Your task to perform on an android device: change text size in settings app Image 0: 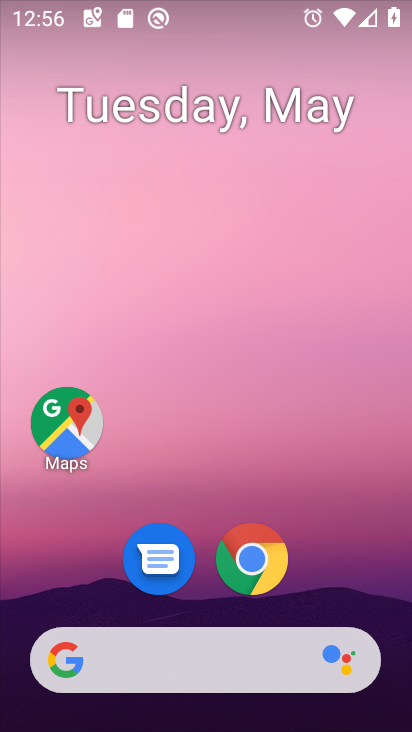
Step 0: drag from (384, 613) to (252, 108)
Your task to perform on an android device: change text size in settings app Image 1: 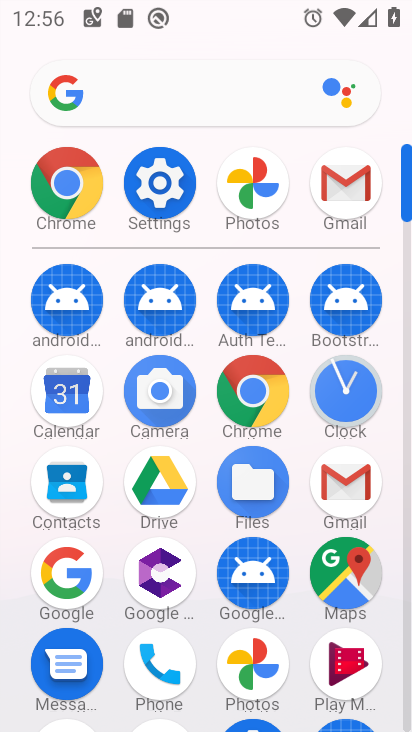
Step 1: click (174, 186)
Your task to perform on an android device: change text size in settings app Image 2: 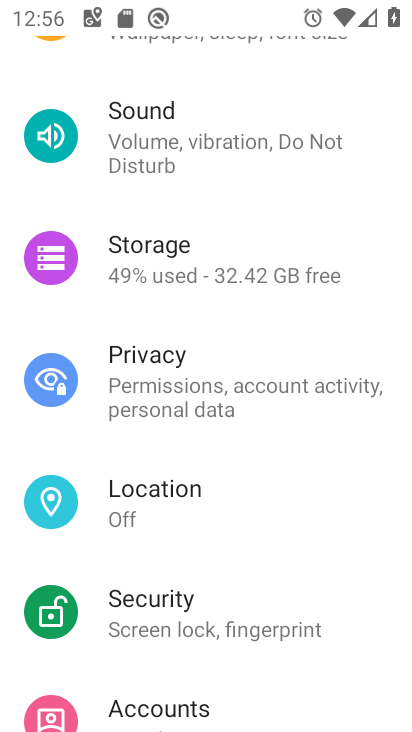
Step 2: drag from (214, 192) to (183, 670)
Your task to perform on an android device: change text size in settings app Image 3: 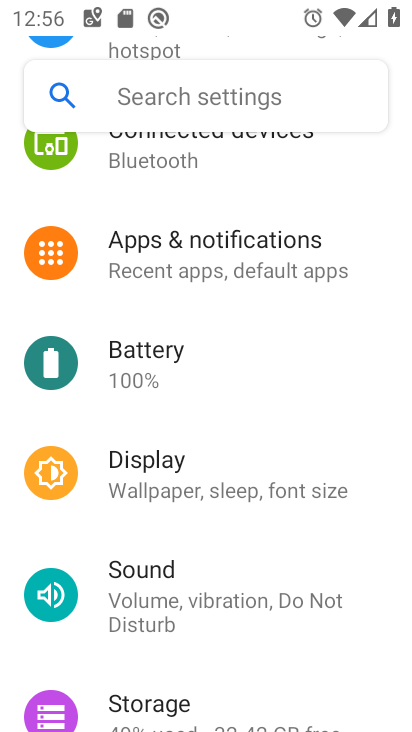
Step 3: click (159, 483)
Your task to perform on an android device: change text size in settings app Image 4: 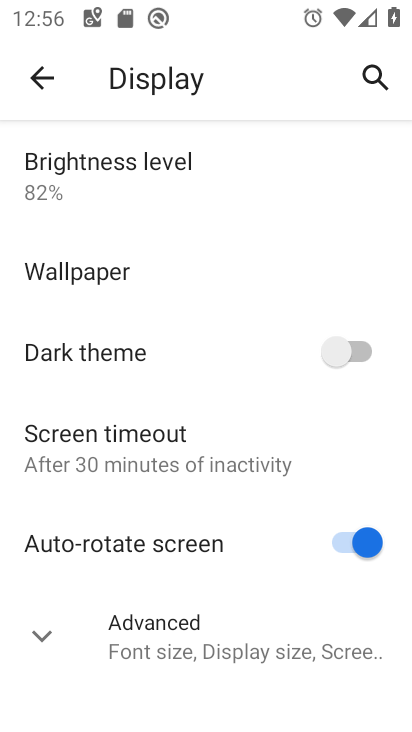
Step 4: click (217, 618)
Your task to perform on an android device: change text size in settings app Image 5: 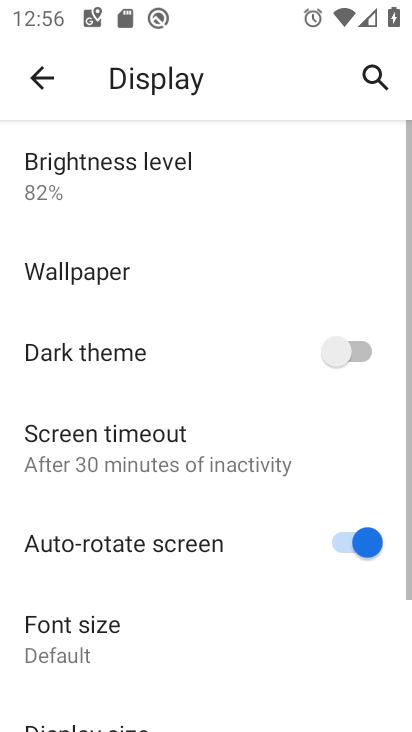
Step 5: drag from (232, 577) to (192, 291)
Your task to perform on an android device: change text size in settings app Image 6: 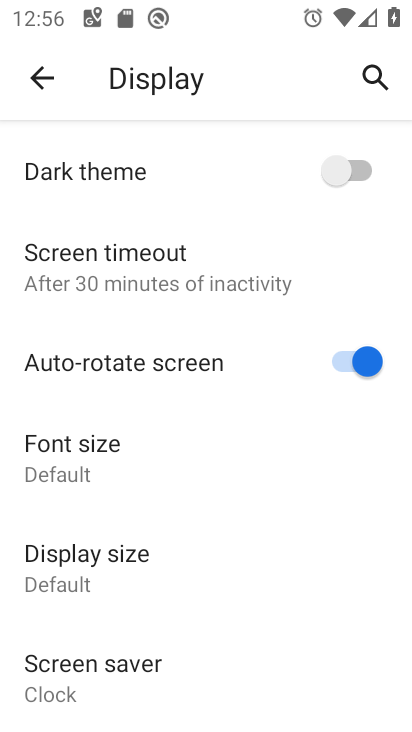
Step 6: click (191, 444)
Your task to perform on an android device: change text size in settings app Image 7: 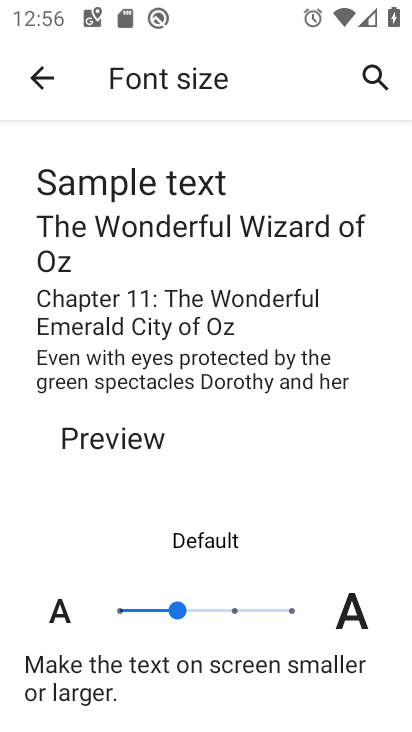
Step 7: click (235, 608)
Your task to perform on an android device: change text size in settings app Image 8: 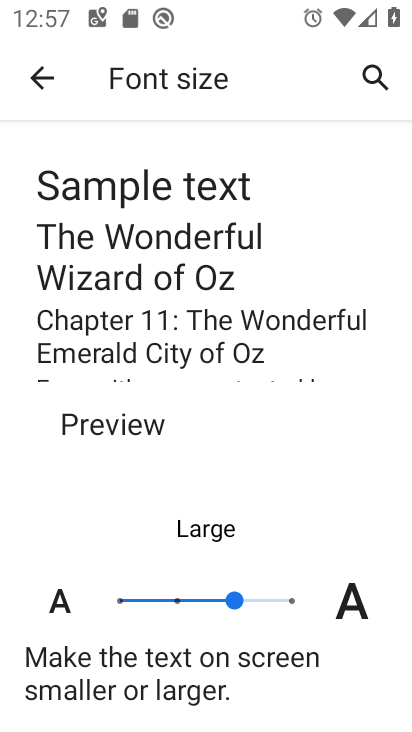
Step 8: task complete